Your task to perform on an android device: turn on location history Image 0: 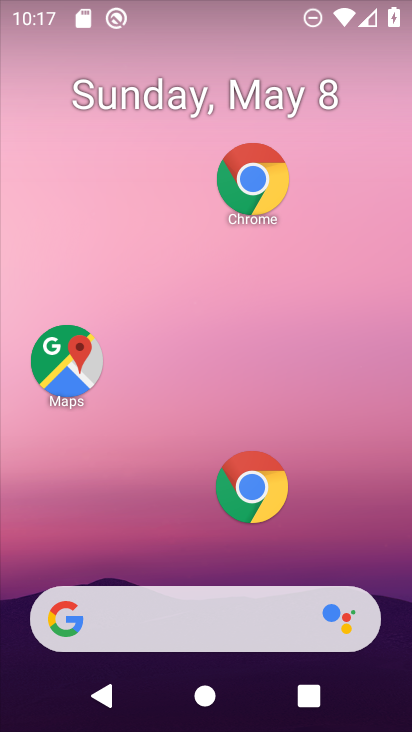
Step 0: drag from (100, 514) to (147, 30)
Your task to perform on an android device: turn on location history Image 1: 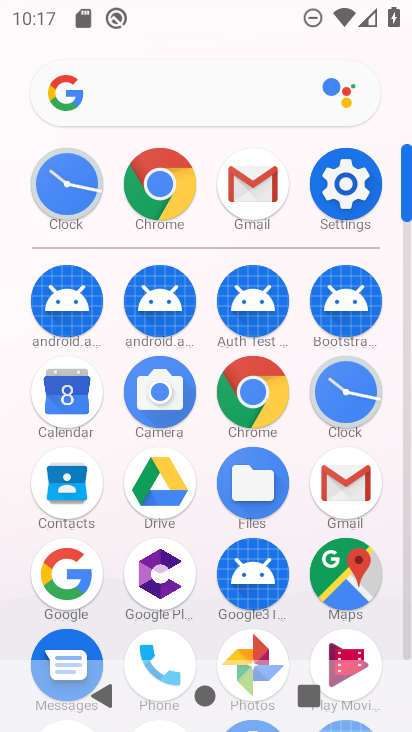
Step 1: click (345, 183)
Your task to perform on an android device: turn on location history Image 2: 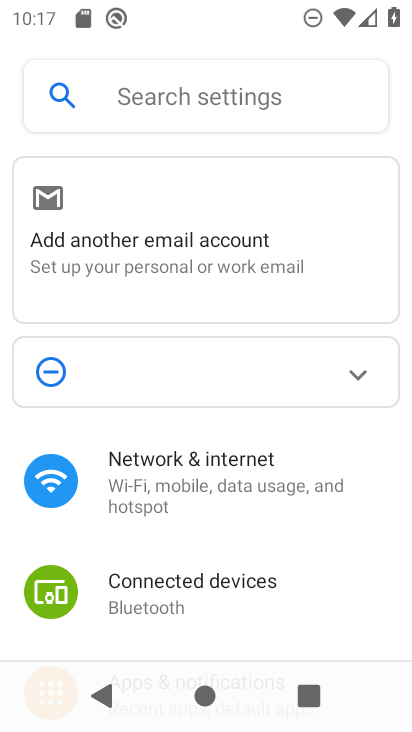
Step 2: drag from (287, 627) to (307, 17)
Your task to perform on an android device: turn on location history Image 3: 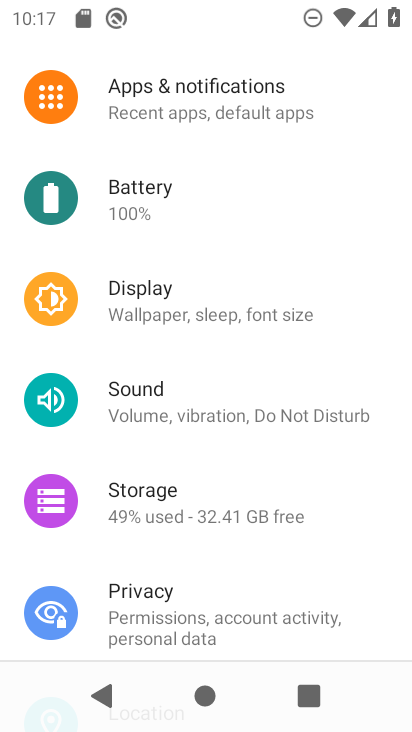
Step 3: drag from (270, 571) to (300, 67)
Your task to perform on an android device: turn on location history Image 4: 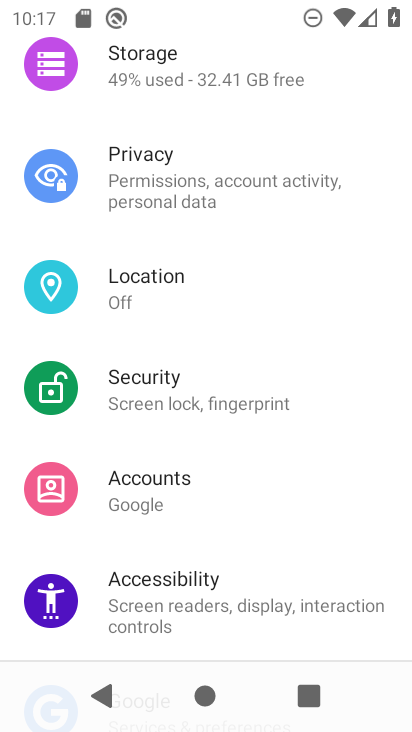
Step 4: click (201, 286)
Your task to perform on an android device: turn on location history Image 5: 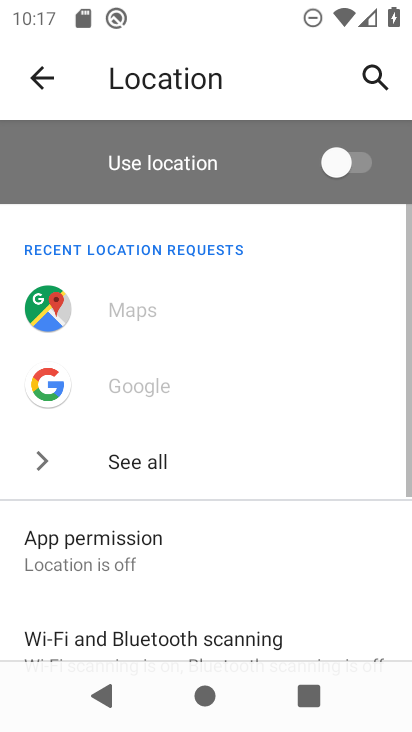
Step 5: click (350, 151)
Your task to perform on an android device: turn on location history Image 6: 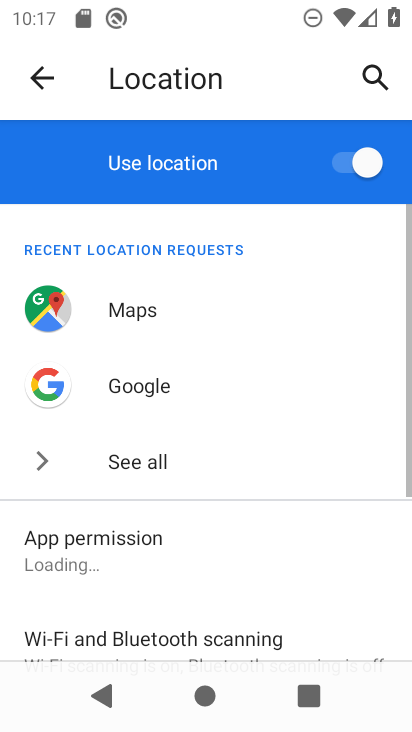
Step 6: task complete